Your task to perform on an android device: toggle pop-ups in chrome Image 0: 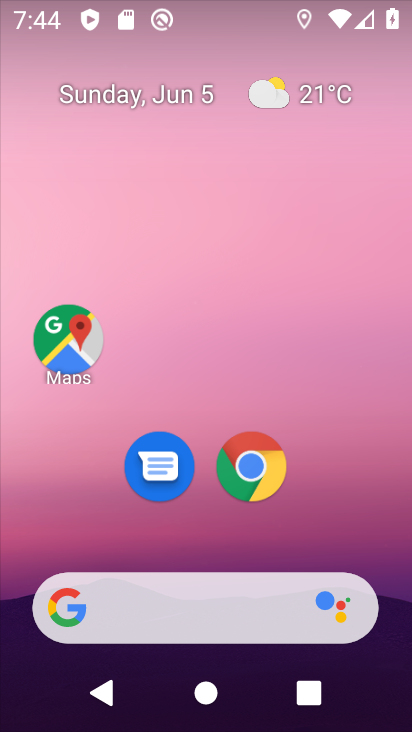
Step 0: drag from (207, 566) to (254, 20)
Your task to perform on an android device: toggle pop-ups in chrome Image 1: 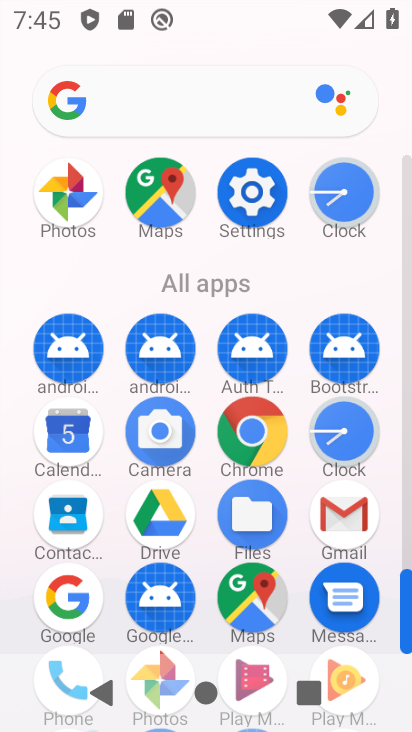
Step 1: click (254, 436)
Your task to perform on an android device: toggle pop-ups in chrome Image 2: 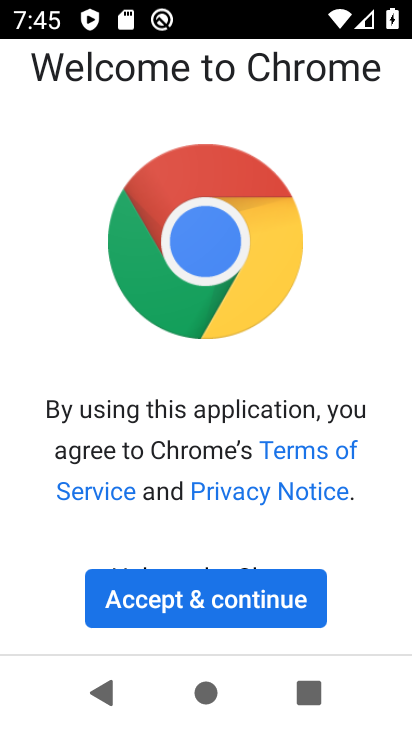
Step 2: click (208, 611)
Your task to perform on an android device: toggle pop-ups in chrome Image 3: 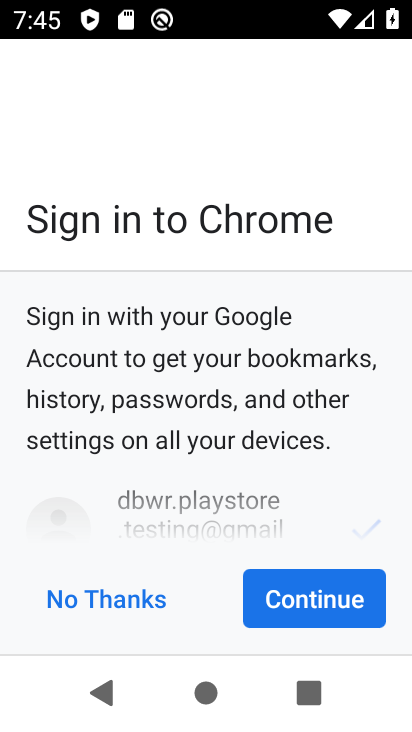
Step 3: click (293, 613)
Your task to perform on an android device: toggle pop-ups in chrome Image 4: 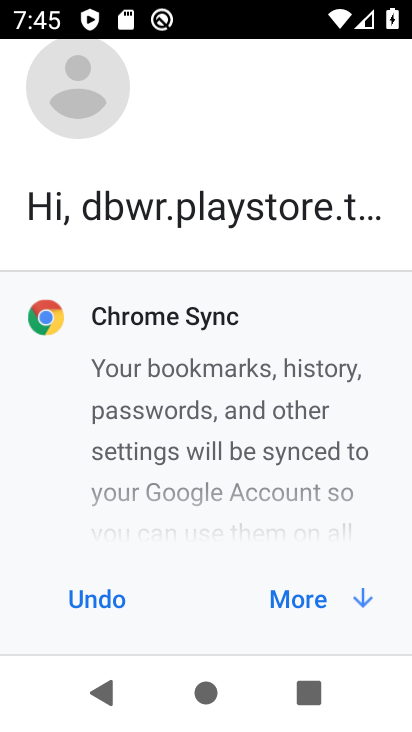
Step 4: click (277, 606)
Your task to perform on an android device: toggle pop-ups in chrome Image 5: 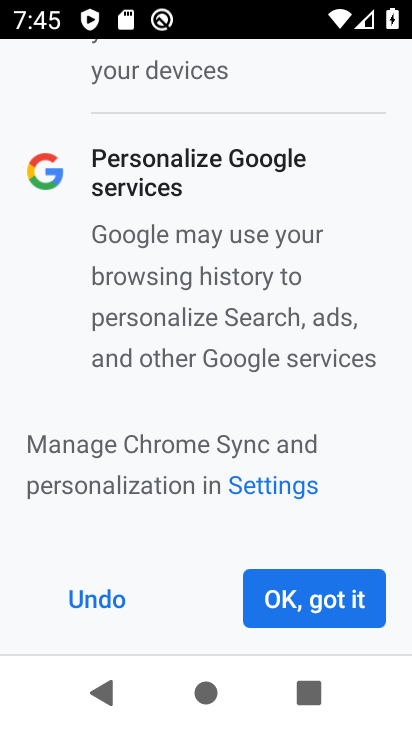
Step 5: click (324, 611)
Your task to perform on an android device: toggle pop-ups in chrome Image 6: 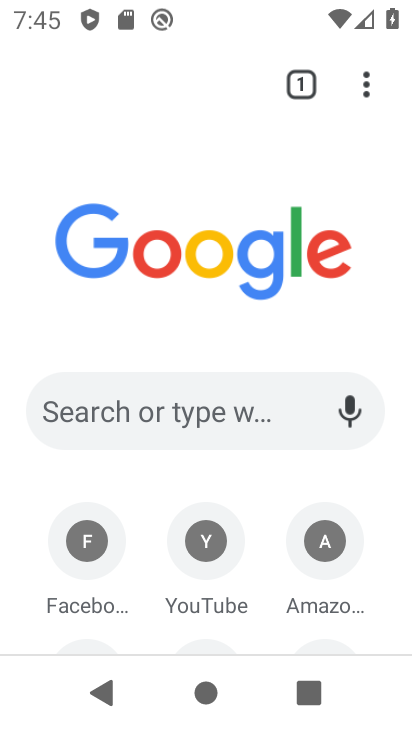
Step 6: click (369, 92)
Your task to perform on an android device: toggle pop-ups in chrome Image 7: 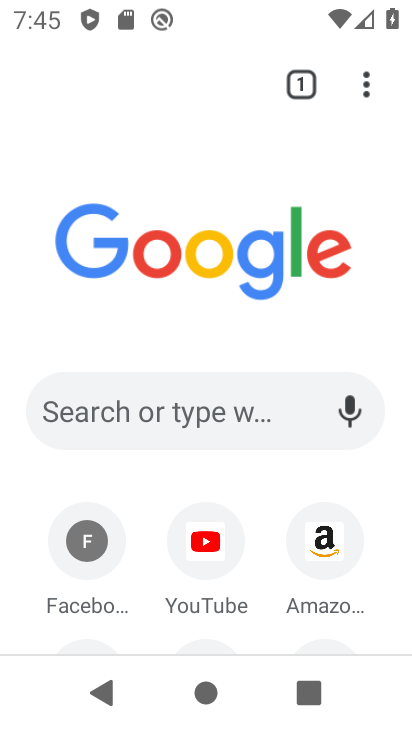
Step 7: drag from (368, 87) to (167, 525)
Your task to perform on an android device: toggle pop-ups in chrome Image 8: 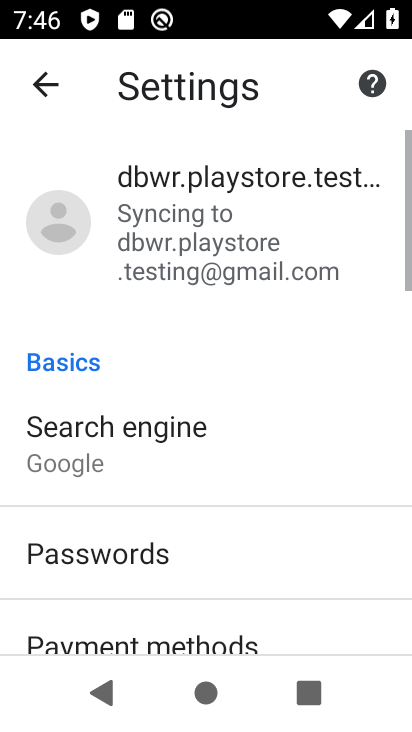
Step 8: drag from (166, 521) to (244, 136)
Your task to perform on an android device: toggle pop-ups in chrome Image 9: 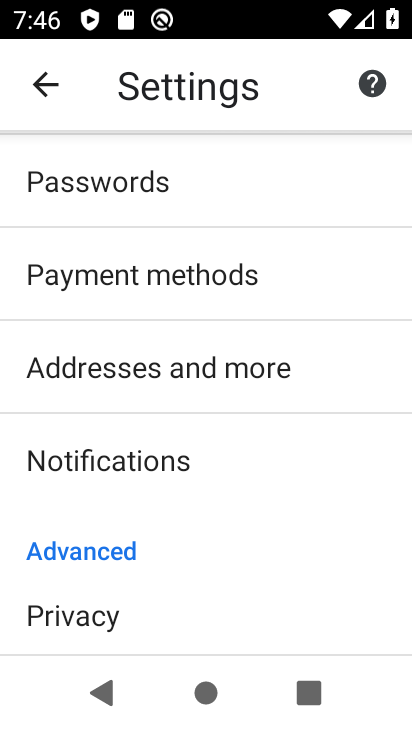
Step 9: drag from (150, 632) to (347, 103)
Your task to perform on an android device: toggle pop-ups in chrome Image 10: 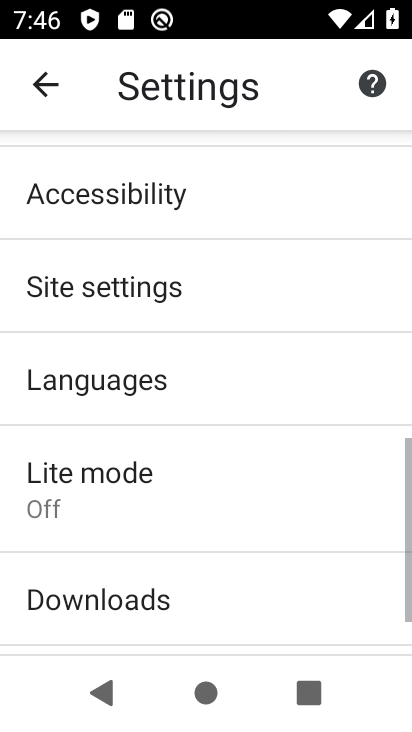
Step 10: click (195, 302)
Your task to perform on an android device: toggle pop-ups in chrome Image 11: 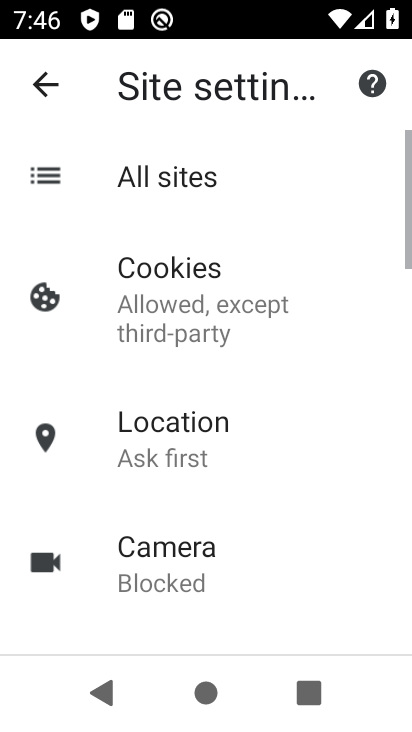
Step 11: drag from (211, 447) to (286, 197)
Your task to perform on an android device: toggle pop-ups in chrome Image 12: 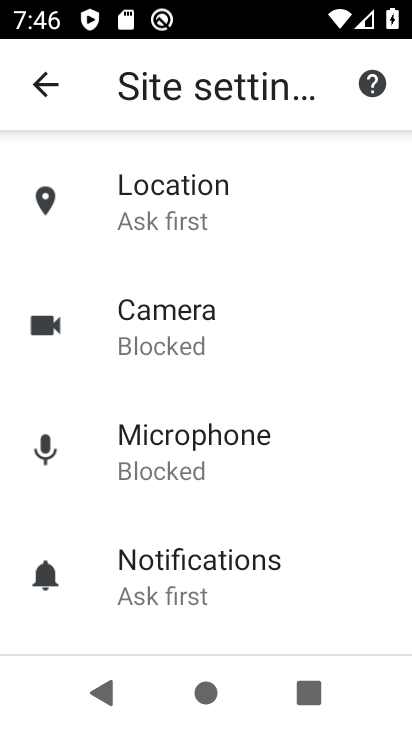
Step 12: drag from (210, 589) to (279, 204)
Your task to perform on an android device: toggle pop-ups in chrome Image 13: 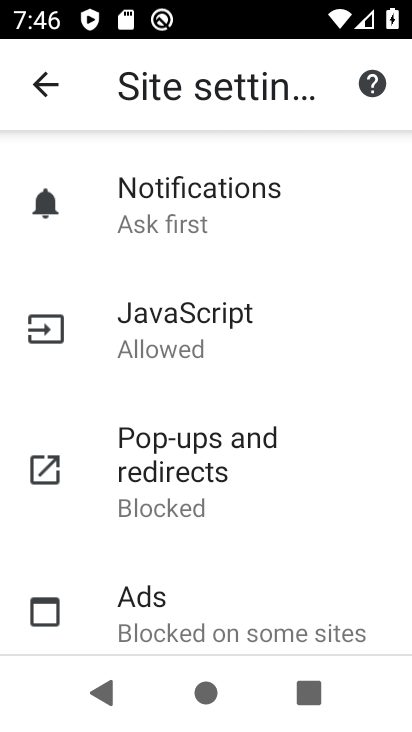
Step 13: click (193, 455)
Your task to perform on an android device: toggle pop-ups in chrome Image 14: 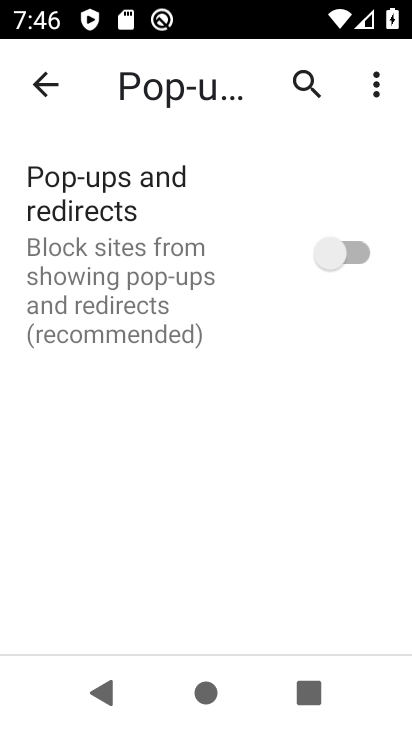
Step 14: drag from (268, 567) to (277, 259)
Your task to perform on an android device: toggle pop-ups in chrome Image 15: 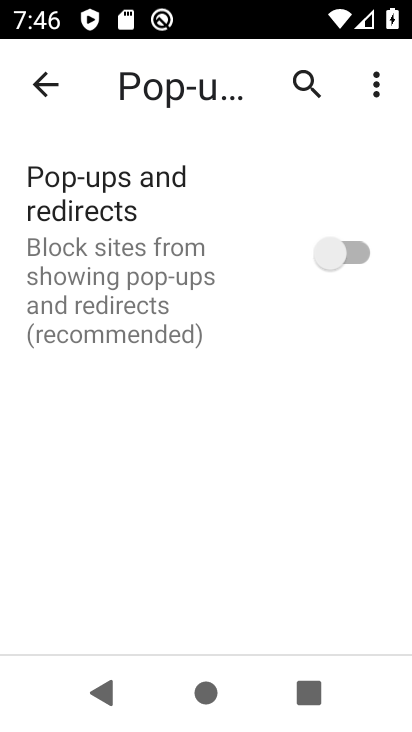
Step 15: click (333, 262)
Your task to perform on an android device: toggle pop-ups in chrome Image 16: 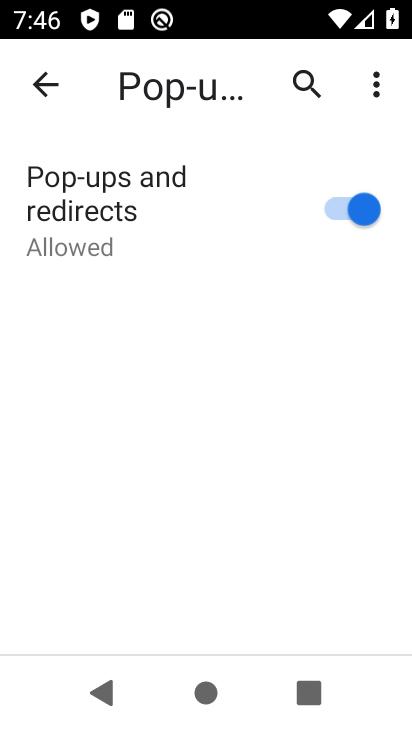
Step 16: task complete